Your task to perform on an android device: Turn on the flashlight Image 0: 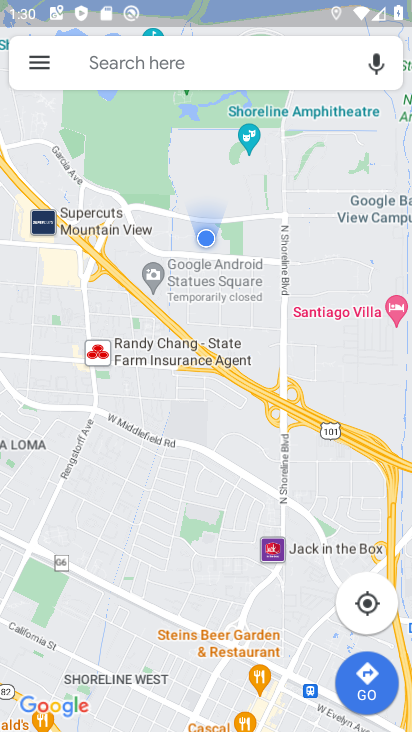
Step 0: press back button
Your task to perform on an android device: Turn on the flashlight Image 1: 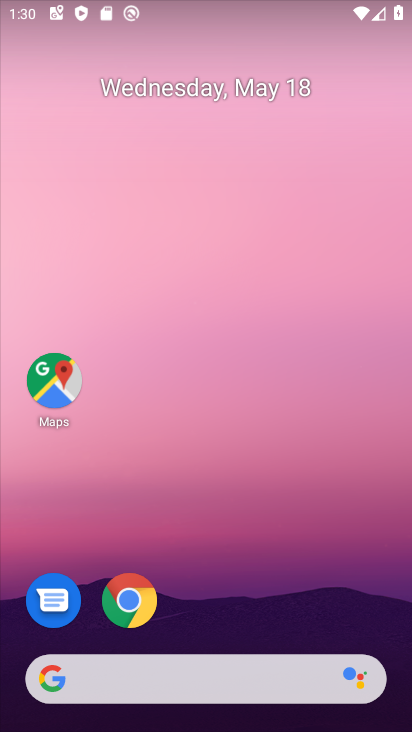
Step 1: drag from (251, 594) to (140, 208)
Your task to perform on an android device: Turn on the flashlight Image 2: 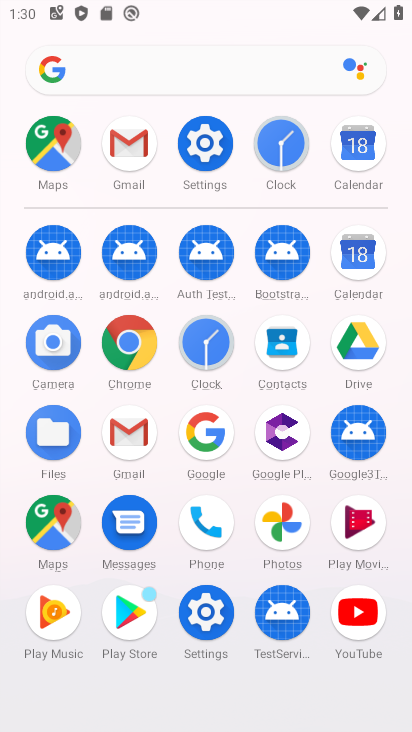
Step 2: click (210, 142)
Your task to perform on an android device: Turn on the flashlight Image 3: 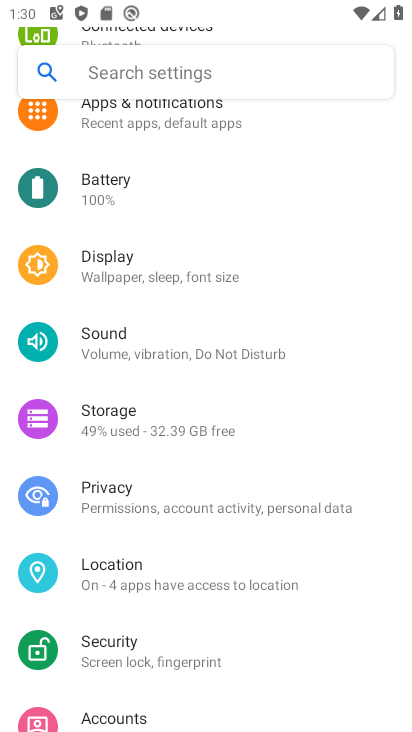
Step 3: drag from (190, 237) to (194, 373)
Your task to perform on an android device: Turn on the flashlight Image 4: 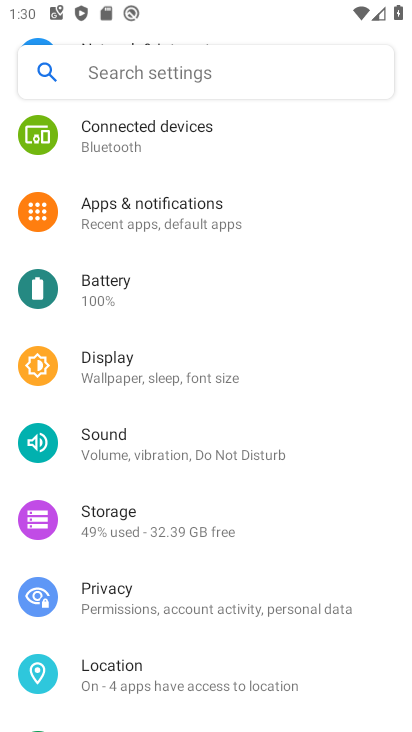
Step 4: drag from (175, 286) to (181, 389)
Your task to perform on an android device: Turn on the flashlight Image 5: 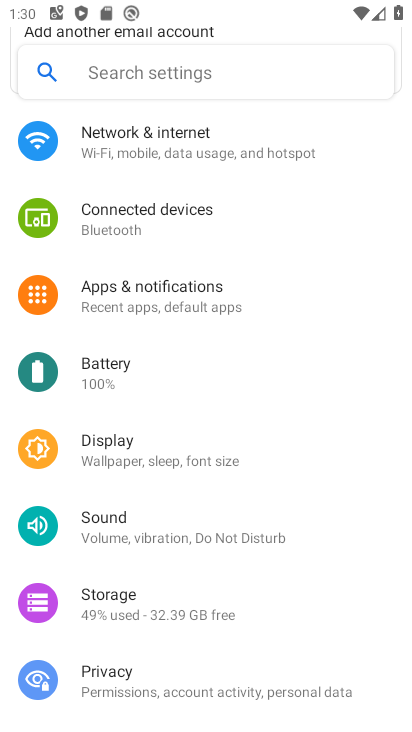
Step 5: click (129, 369)
Your task to perform on an android device: Turn on the flashlight Image 6: 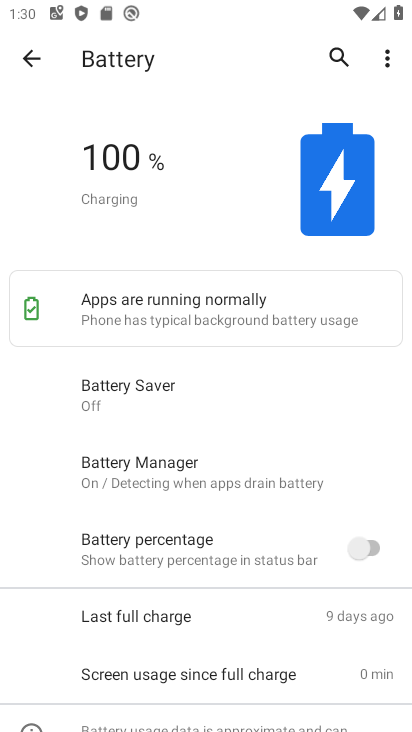
Step 6: drag from (175, 439) to (200, 357)
Your task to perform on an android device: Turn on the flashlight Image 7: 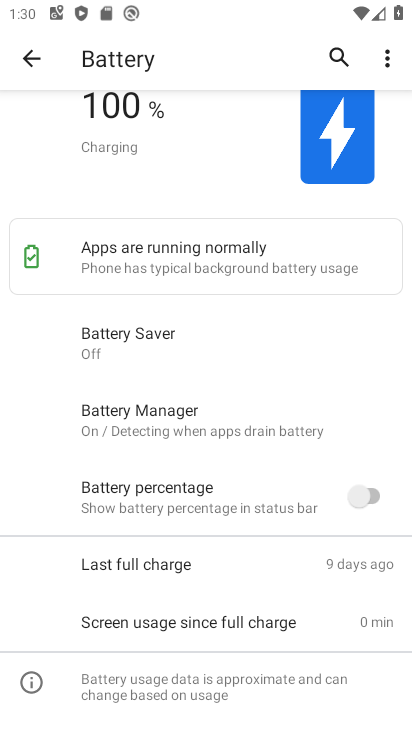
Step 7: drag from (178, 579) to (204, 498)
Your task to perform on an android device: Turn on the flashlight Image 8: 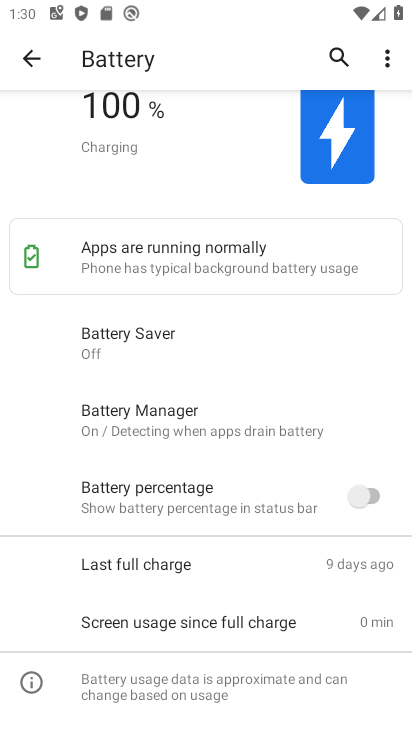
Step 8: press back button
Your task to perform on an android device: Turn on the flashlight Image 9: 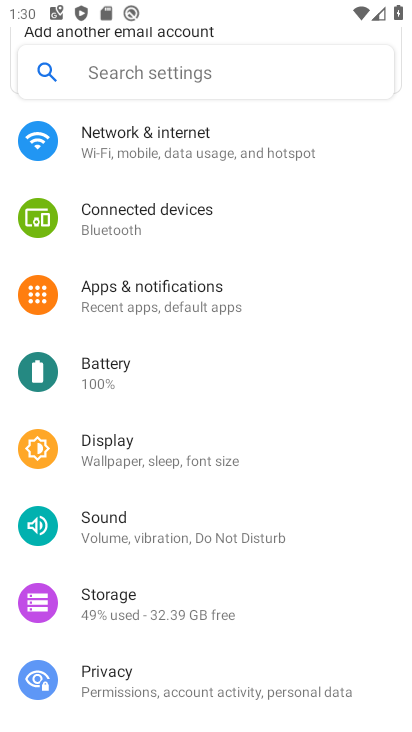
Step 9: click (100, 449)
Your task to perform on an android device: Turn on the flashlight Image 10: 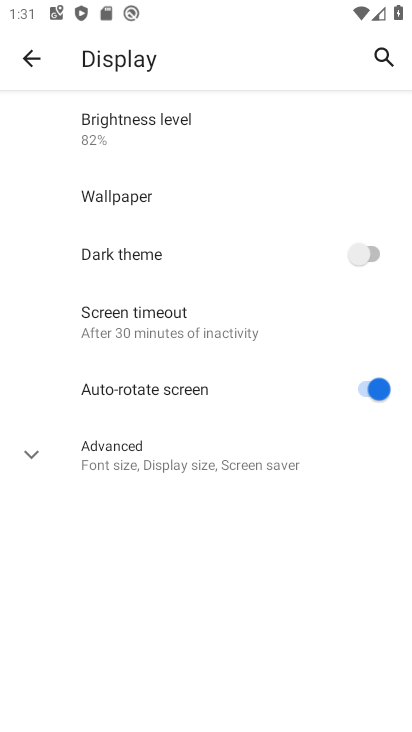
Step 10: click (181, 464)
Your task to perform on an android device: Turn on the flashlight Image 11: 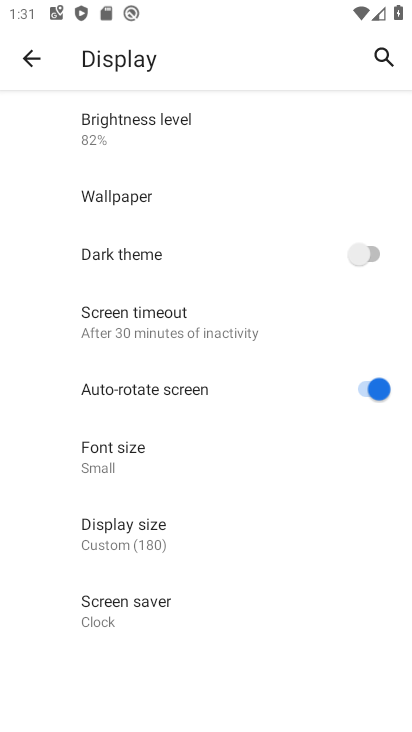
Step 11: task complete